Your task to perform on an android device: Do I have any events tomorrow? Image 0: 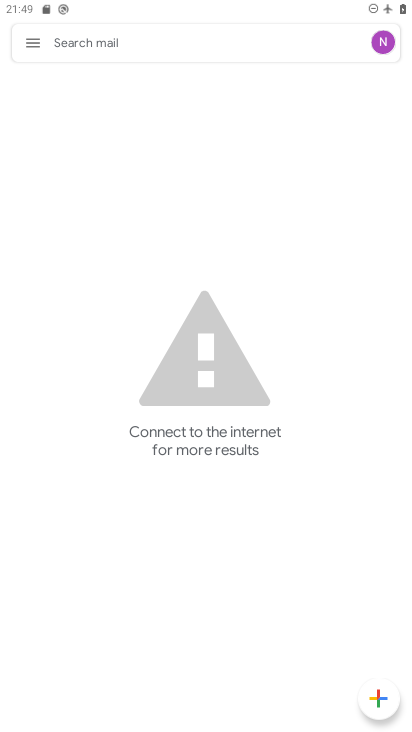
Step 0: press home button
Your task to perform on an android device: Do I have any events tomorrow? Image 1: 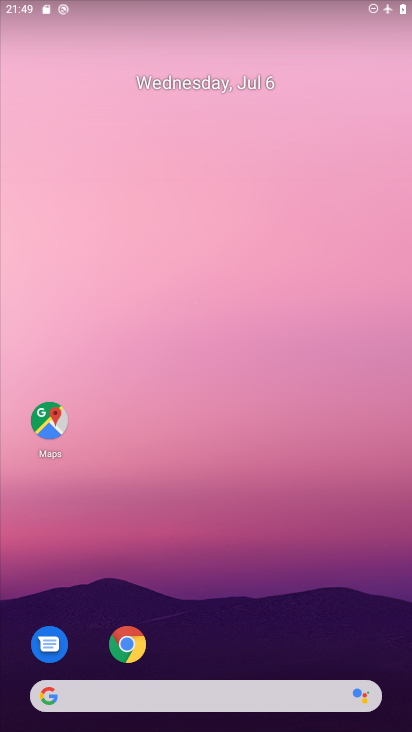
Step 1: drag from (203, 640) to (221, 181)
Your task to perform on an android device: Do I have any events tomorrow? Image 2: 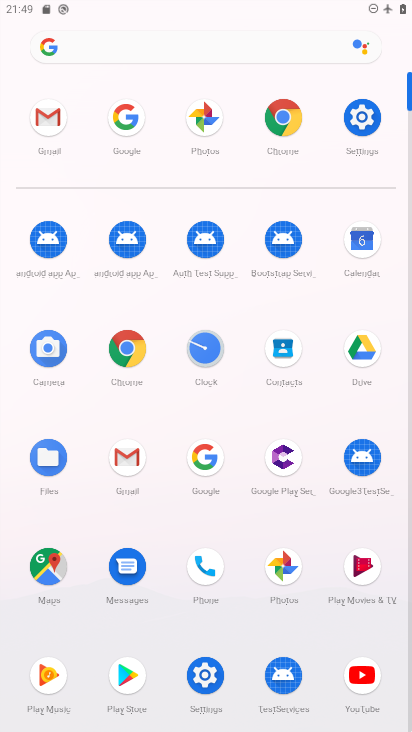
Step 2: click (342, 255)
Your task to perform on an android device: Do I have any events tomorrow? Image 3: 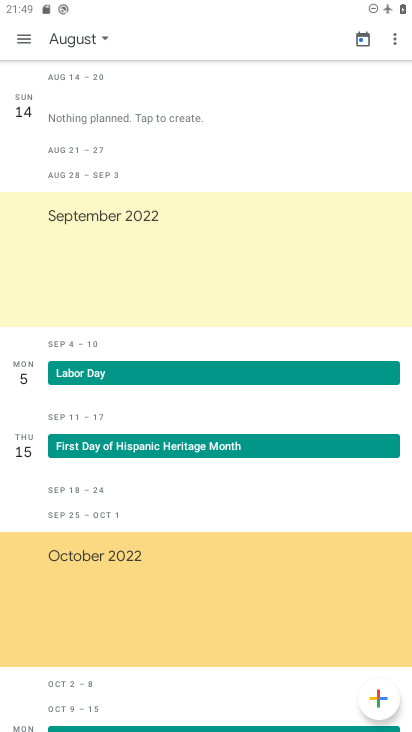
Step 3: click (88, 34)
Your task to perform on an android device: Do I have any events tomorrow? Image 4: 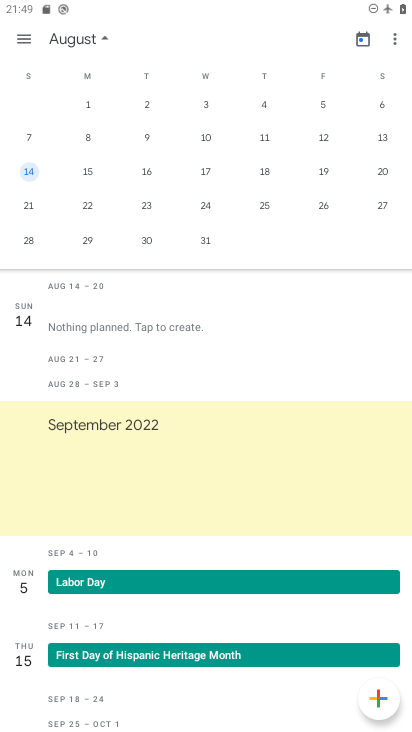
Step 4: drag from (57, 146) to (344, 147)
Your task to perform on an android device: Do I have any events tomorrow? Image 5: 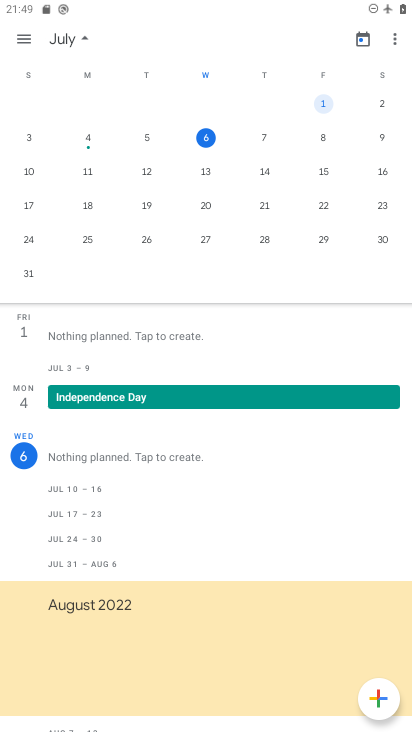
Step 5: click (255, 133)
Your task to perform on an android device: Do I have any events tomorrow? Image 6: 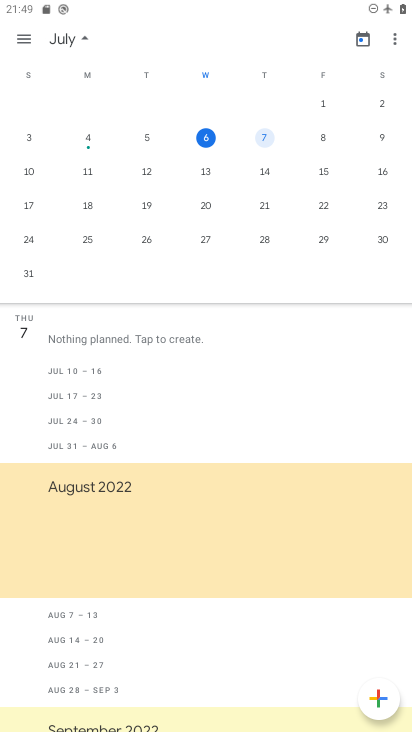
Step 6: click (132, 350)
Your task to perform on an android device: Do I have any events tomorrow? Image 7: 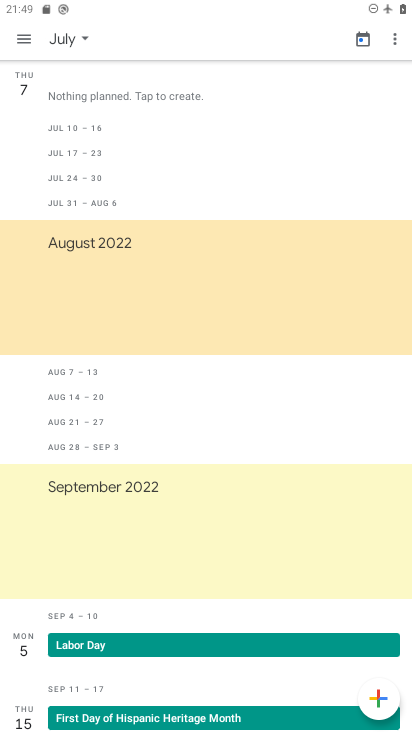
Step 7: task complete